Your task to perform on an android device: turn notification dots off Image 0: 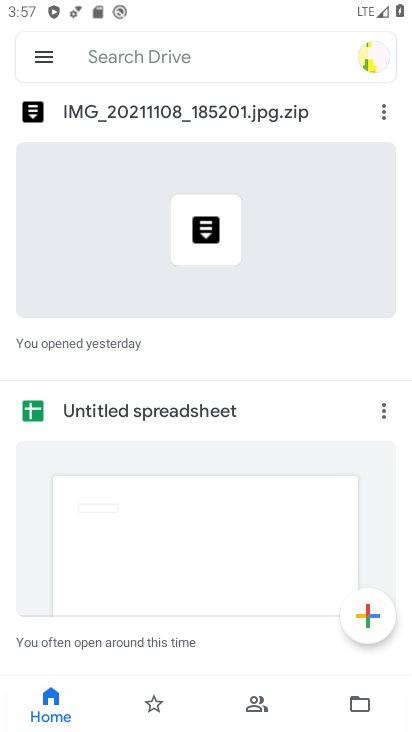
Step 0: press home button
Your task to perform on an android device: turn notification dots off Image 1: 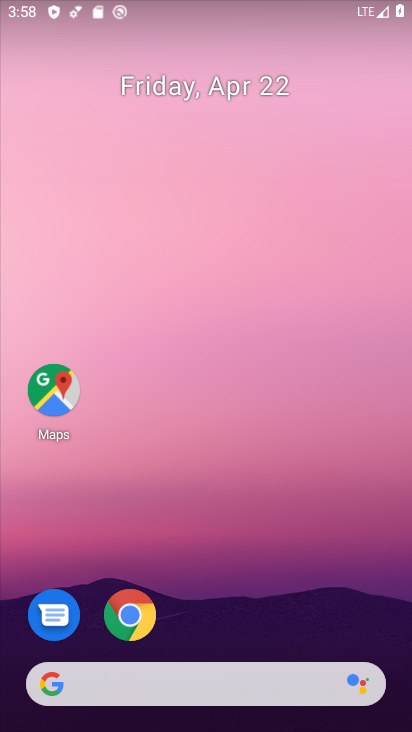
Step 1: drag from (308, 592) to (280, 0)
Your task to perform on an android device: turn notification dots off Image 2: 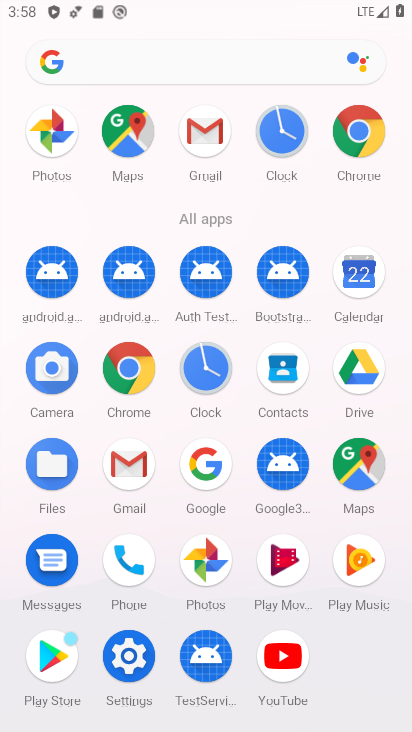
Step 2: click (127, 646)
Your task to perform on an android device: turn notification dots off Image 3: 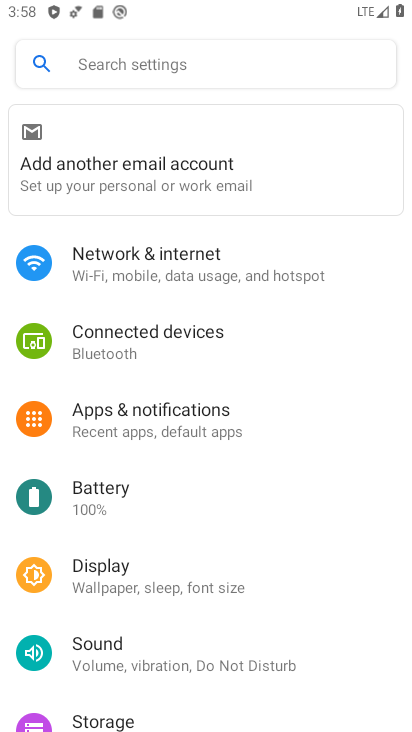
Step 3: click (150, 408)
Your task to perform on an android device: turn notification dots off Image 4: 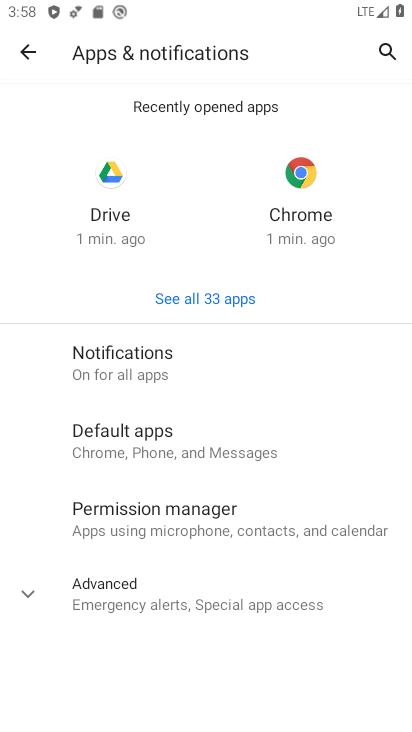
Step 4: click (177, 362)
Your task to perform on an android device: turn notification dots off Image 5: 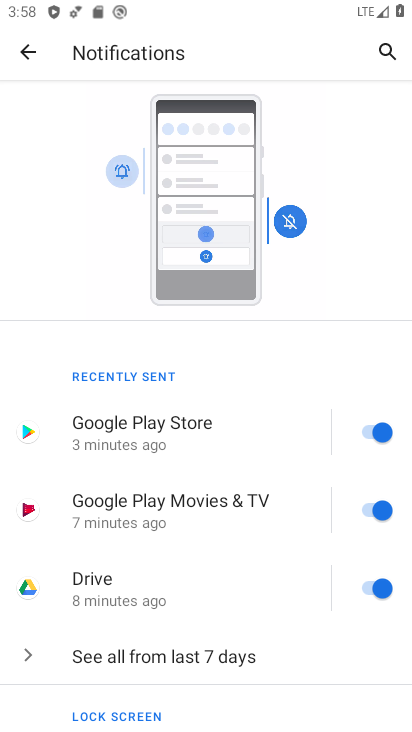
Step 5: drag from (218, 588) to (198, 122)
Your task to perform on an android device: turn notification dots off Image 6: 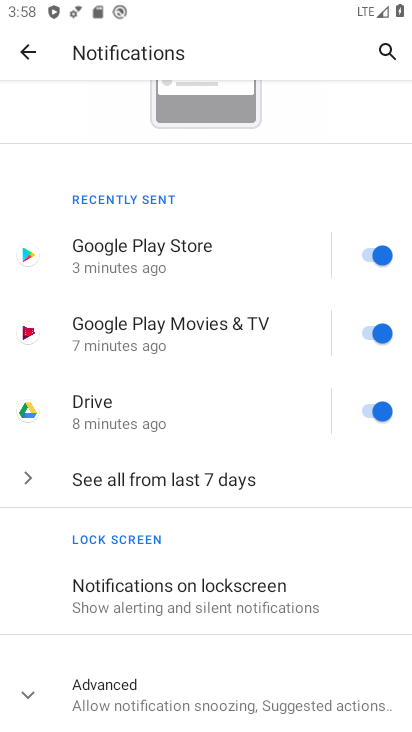
Step 6: click (128, 692)
Your task to perform on an android device: turn notification dots off Image 7: 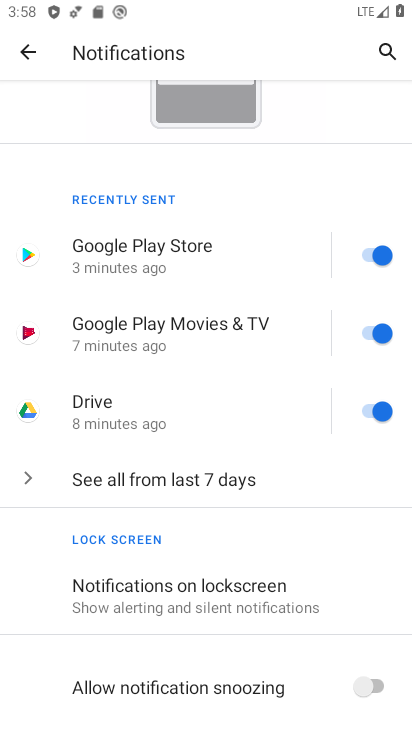
Step 7: drag from (170, 630) to (169, 103)
Your task to perform on an android device: turn notification dots off Image 8: 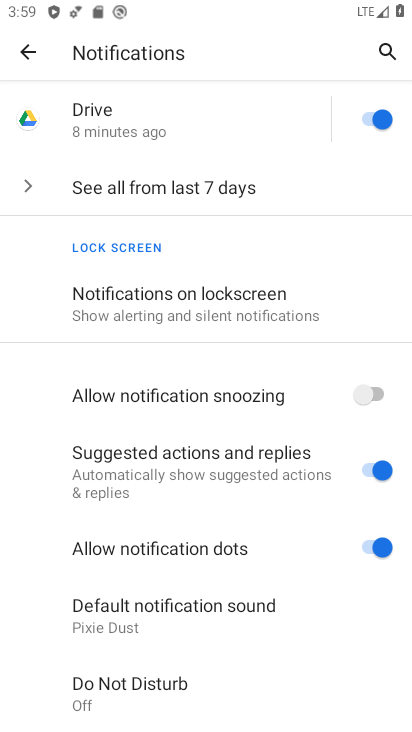
Step 8: click (380, 547)
Your task to perform on an android device: turn notification dots off Image 9: 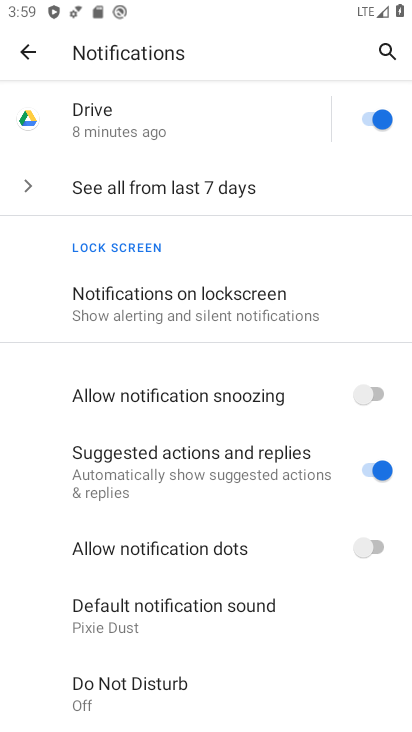
Step 9: task complete